Your task to perform on an android device: Show the shopping cart on ebay.com. Search for "beats solo 3" on ebay.com, select the first entry, and add it to the cart. Image 0: 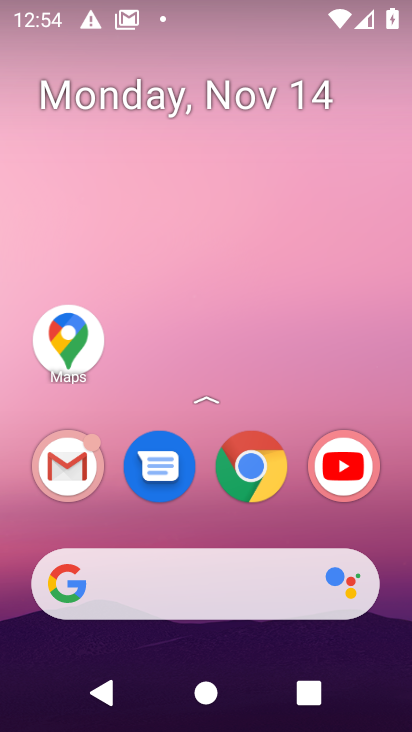
Step 0: click (250, 468)
Your task to perform on an android device: Show the shopping cart on ebay.com. Search for "beats solo 3" on ebay.com, select the first entry, and add it to the cart. Image 1: 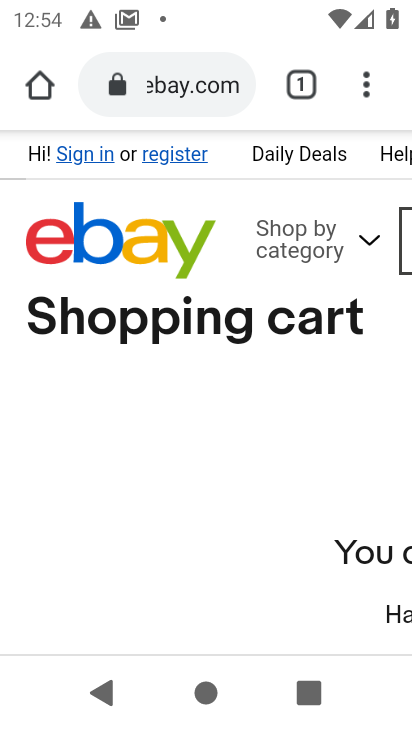
Step 1: drag from (317, 247) to (14, 318)
Your task to perform on an android device: Show the shopping cart on ebay.com. Search for "beats solo 3" on ebay.com, select the first entry, and add it to the cart. Image 2: 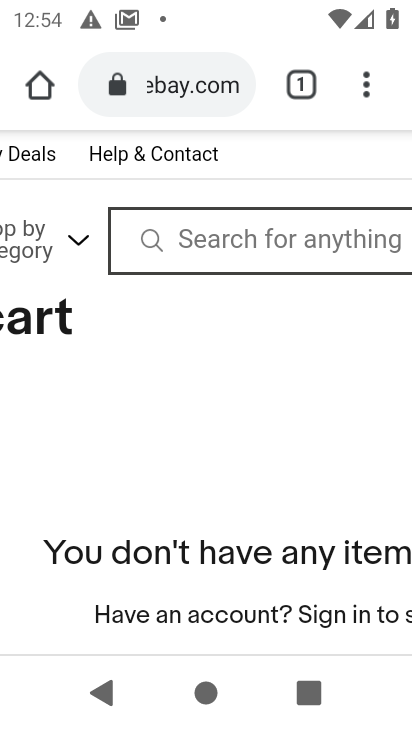
Step 2: click (254, 225)
Your task to perform on an android device: Show the shopping cart on ebay.com. Search for "beats solo 3" on ebay.com, select the first entry, and add it to the cart. Image 3: 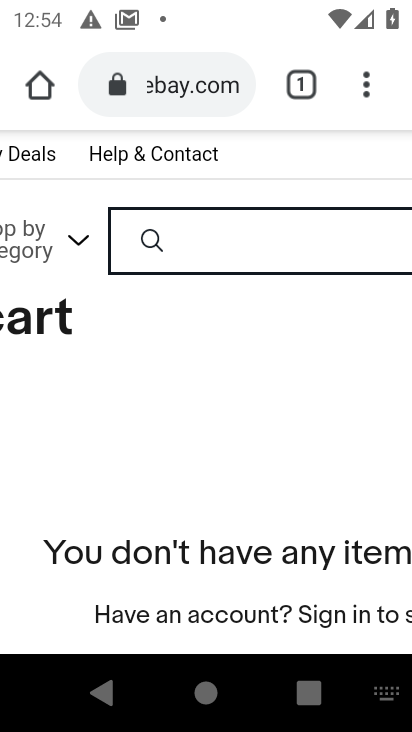
Step 3: type "beats solo 3"
Your task to perform on an android device: Show the shopping cart on ebay.com. Search for "beats solo 3" on ebay.com, select the first entry, and add it to the cart. Image 4: 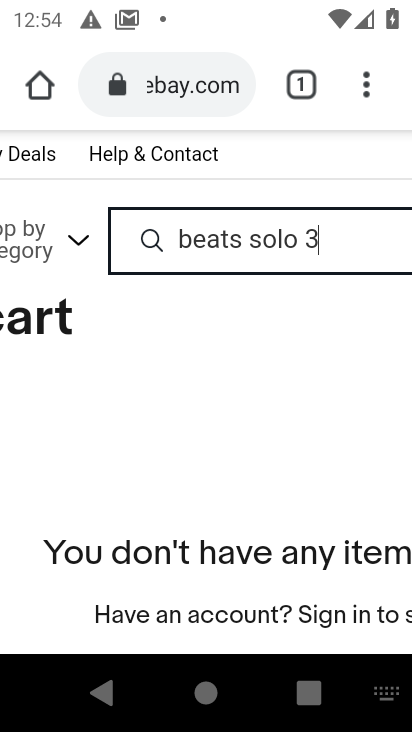
Step 4: press enter
Your task to perform on an android device: Show the shopping cart on ebay.com. Search for "beats solo 3" on ebay.com, select the first entry, and add it to the cart. Image 5: 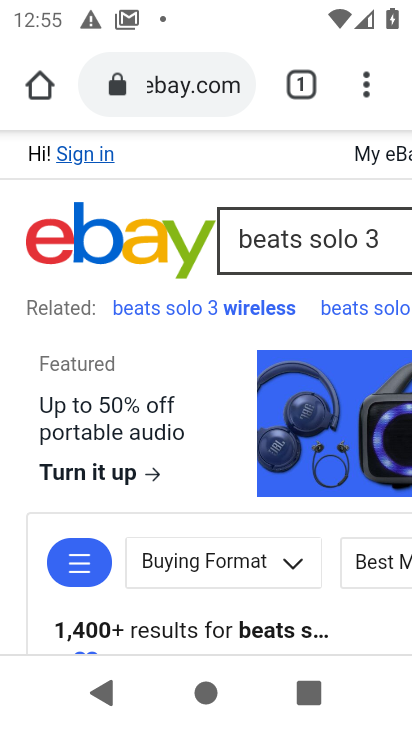
Step 5: drag from (286, 595) to (295, 219)
Your task to perform on an android device: Show the shopping cart on ebay.com. Search for "beats solo 3" on ebay.com, select the first entry, and add it to the cart. Image 6: 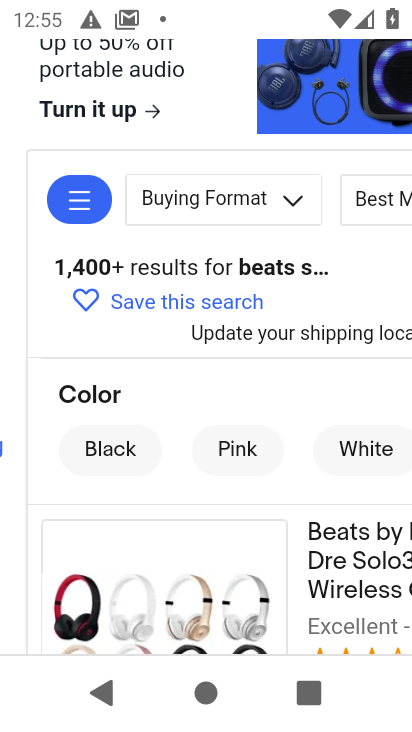
Step 6: drag from (346, 578) to (199, 363)
Your task to perform on an android device: Show the shopping cart on ebay.com. Search for "beats solo 3" on ebay.com, select the first entry, and add it to the cart. Image 7: 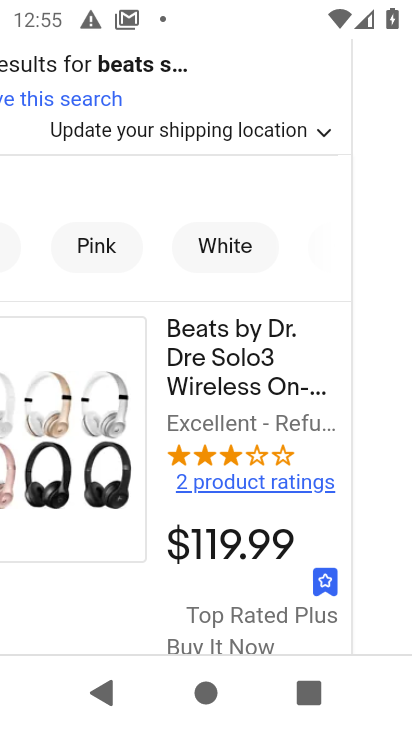
Step 7: drag from (141, 600) to (312, 387)
Your task to perform on an android device: Show the shopping cart on ebay.com. Search for "beats solo 3" on ebay.com, select the first entry, and add it to the cart. Image 8: 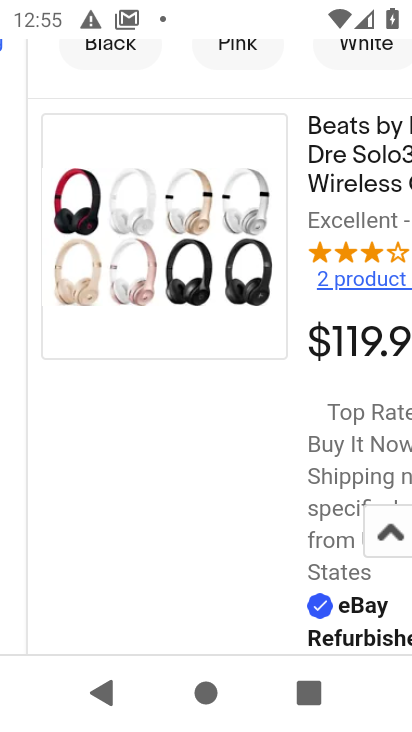
Step 8: drag from (243, 517) to (211, 231)
Your task to perform on an android device: Show the shopping cart on ebay.com. Search for "beats solo 3" on ebay.com, select the first entry, and add it to the cart. Image 9: 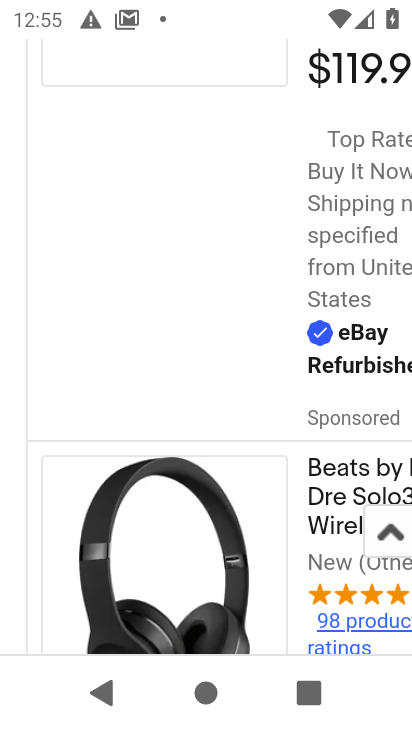
Step 9: drag from (311, 479) to (201, 210)
Your task to perform on an android device: Show the shopping cart on ebay.com. Search for "beats solo 3" on ebay.com, select the first entry, and add it to the cart. Image 10: 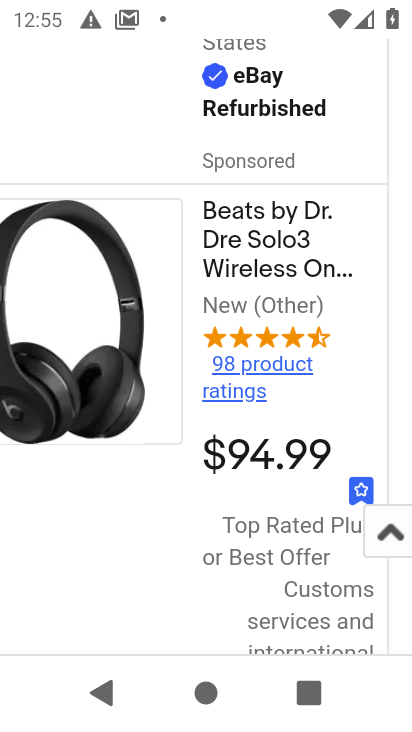
Step 10: drag from (148, 554) to (288, 248)
Your task to perform on an android device: Show the shopping cart on ebay.com. Search for "beats solo 3" on ebay.com, select the first entry, and add it to the cart. Image 11: 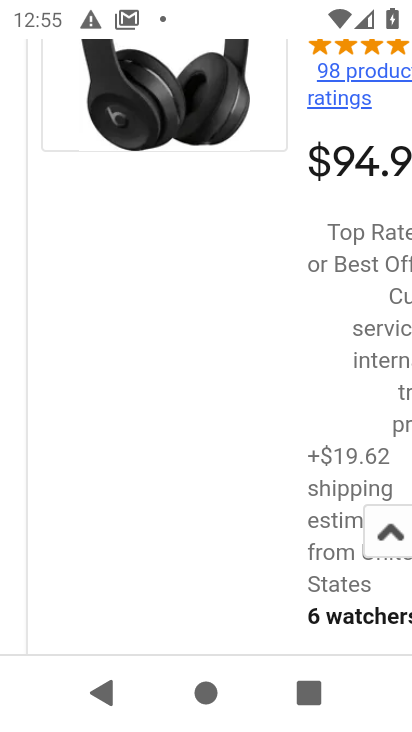
Step 11: drag from (244, 573) to (204, 187)
Your task to perform on an android device: Show the shopping cart on ebay.com. Search for "beats solo 3" on ebay.com, select the first entry, and add it to the cart. Image 12: 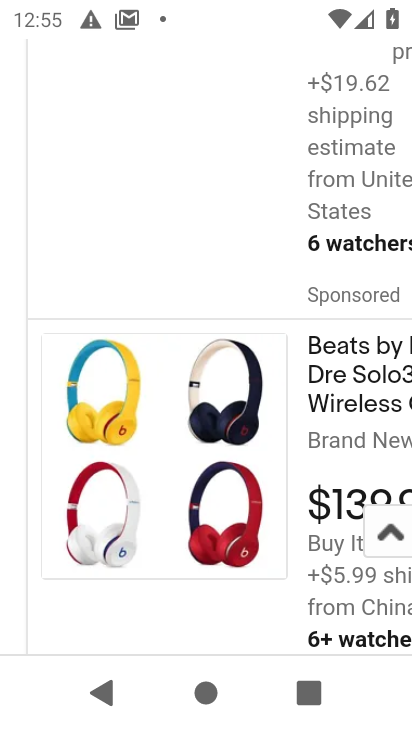
Step 12: drag from (300, 471) to (122, 294)
Your task to perform on an android device: Show the shopping cart on ebay.com. Search for "beats solo 3" on ebay.com, select the first entry, and add it to the cart. Image 13: 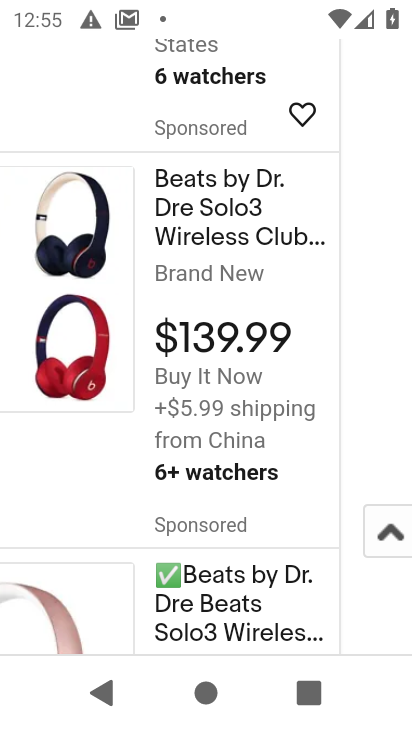
Step 13: click (57, 242)
Your task to perform on an android device: Show the shopping cart on ebay.com. Search for "beats solo 3" on ebay.com, select the first entry, and add it to the cart. Image 14: 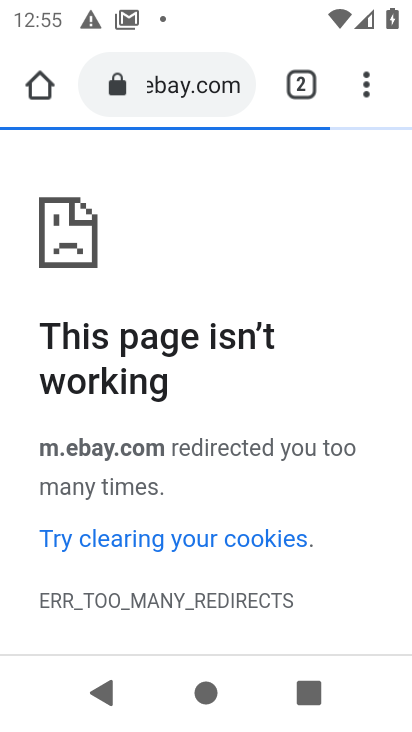
Step 14: press back button
Your task to perform on an android device: Show the shopping cart on ebay.com. Search for "beats solo 3" on ebay.com, select the first entry, and add it to the cart. Image 15: 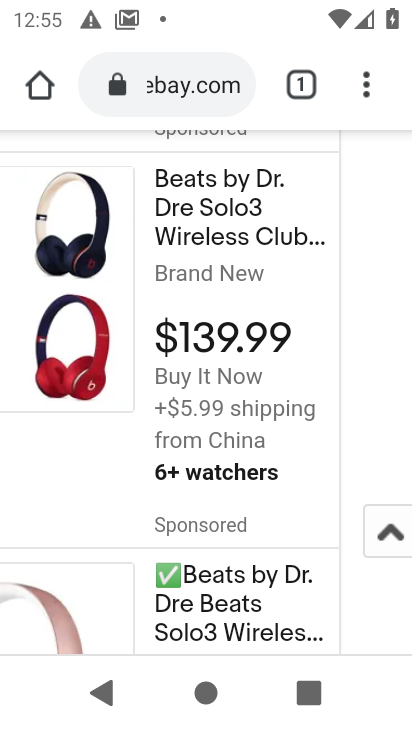
Step 15: click (227, 623)
Your task to perform on an android device: Show the shopping cart on ebay.com. Search for "beats solo 3" on ebay.com, select the first entry, and add it to the cart. Image 16: 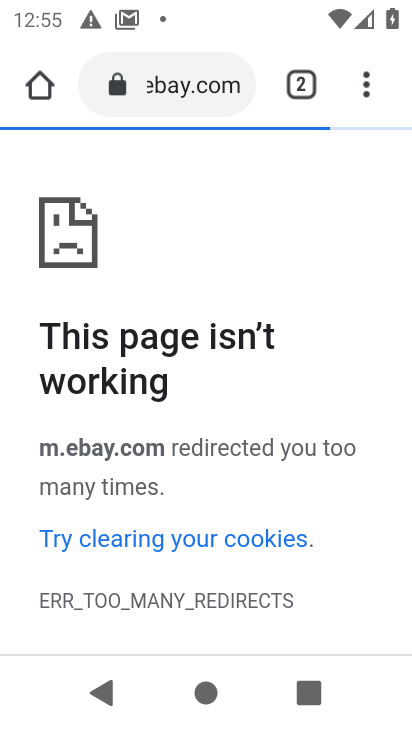
Step 16: task complete